Your task to perform on an android device: Open eBay Image 0: 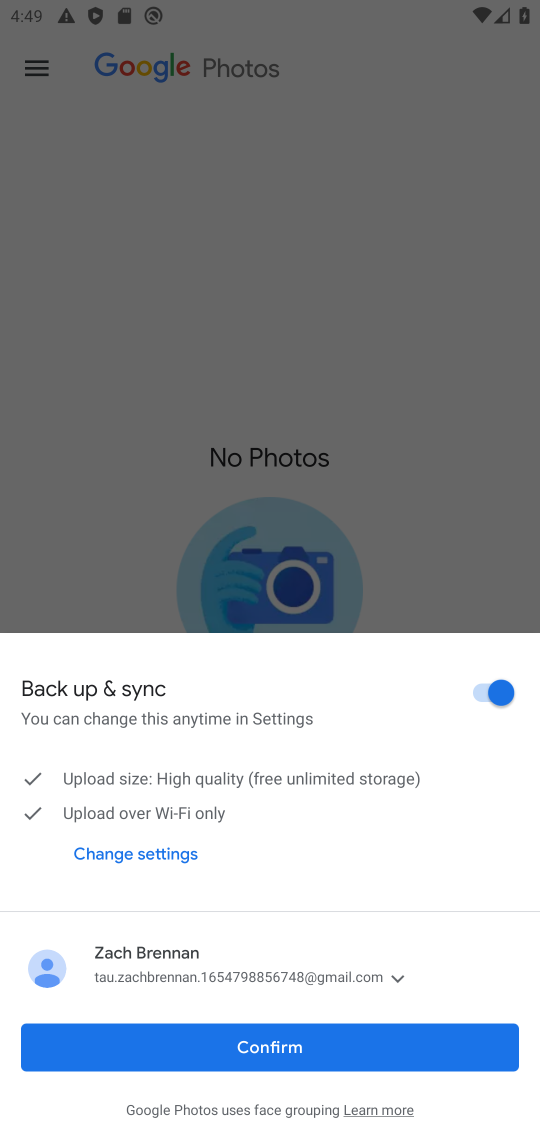
Step 0: press home button
Your task to perform on an android device: Open eBay Image 1: 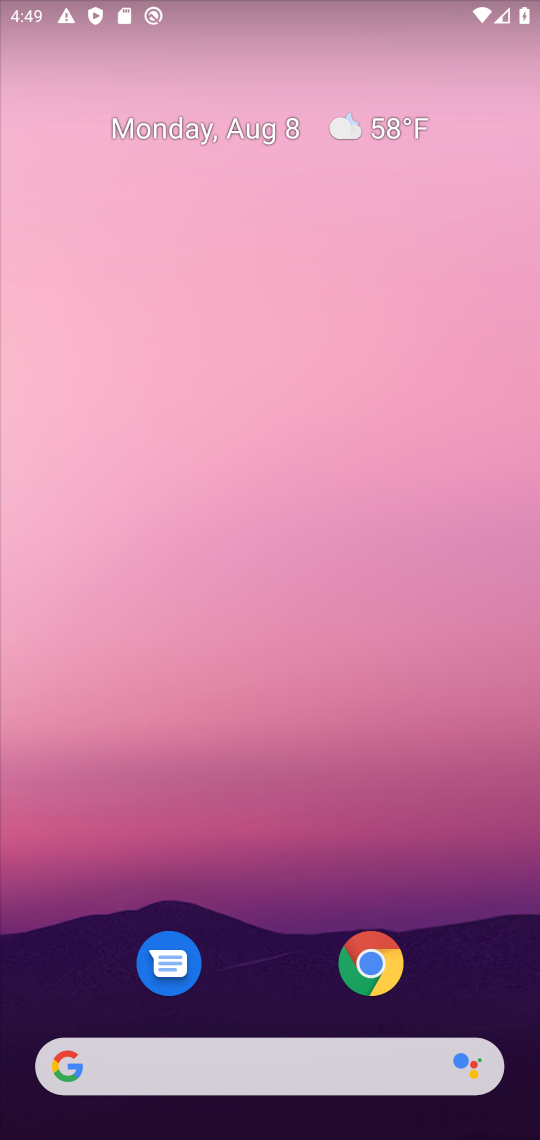
Step 1: click (362, 948)
Your task to perform on an android device: Open eBay Image 2: 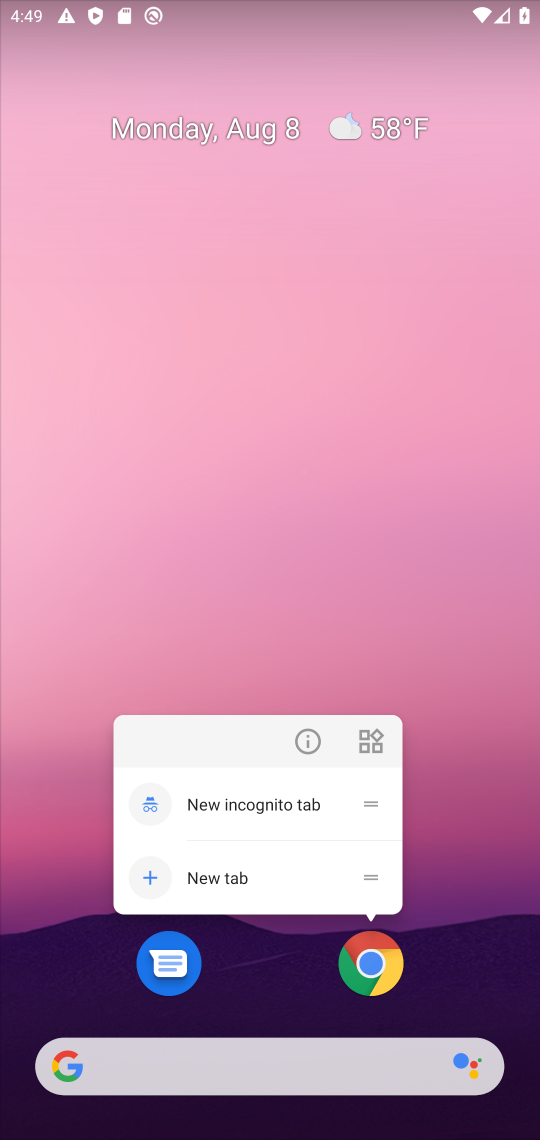
Step 2: click (366, 948)
Your task to perform on an android device: Open eBay Image 3: 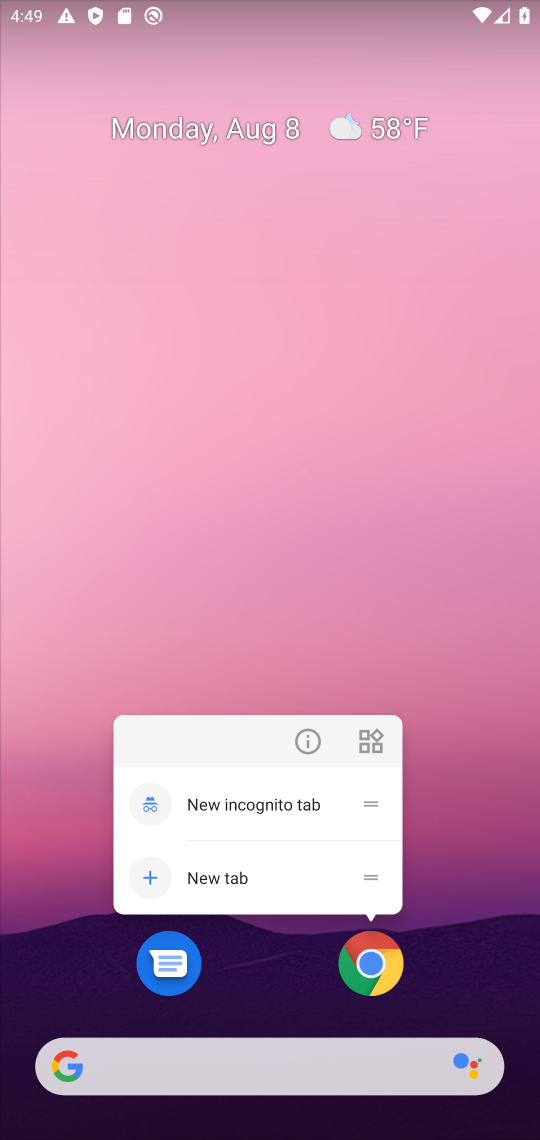
Step 3: click (366, 948)
Your task to perform on an android device: Open eBay Image 4: 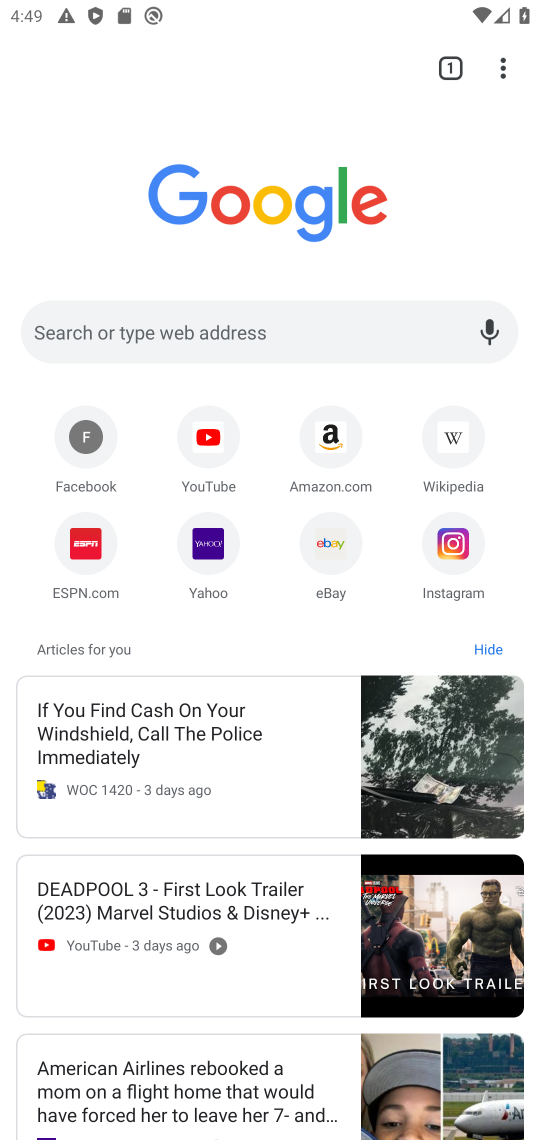
Step 4: click (330, 548)
Your task to perform on an android device: Open eBay Image 5: 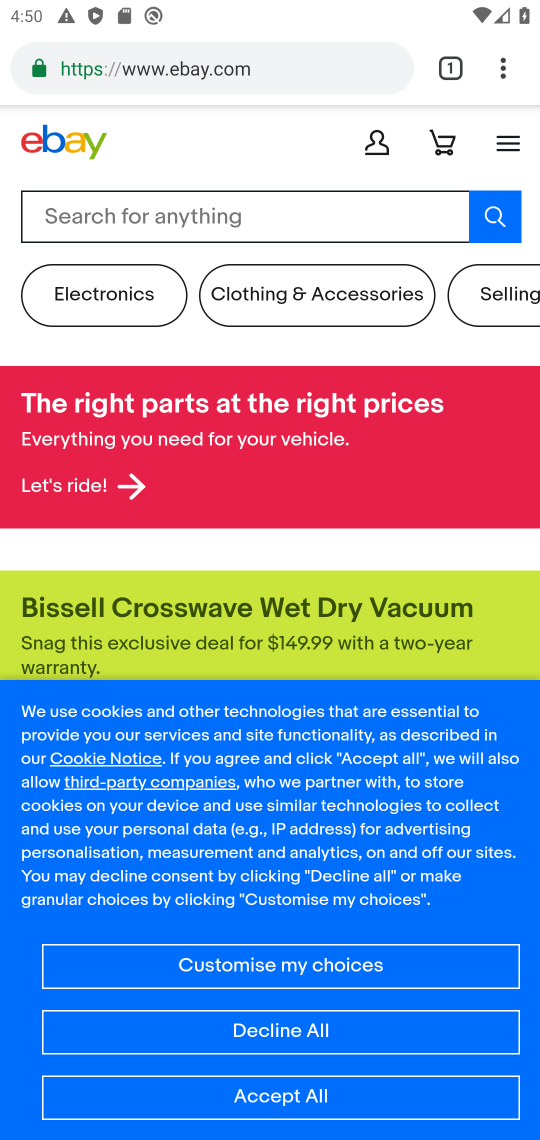
Step 5: task complete